Your task to perform on an android device: change notifications settings Image 0: 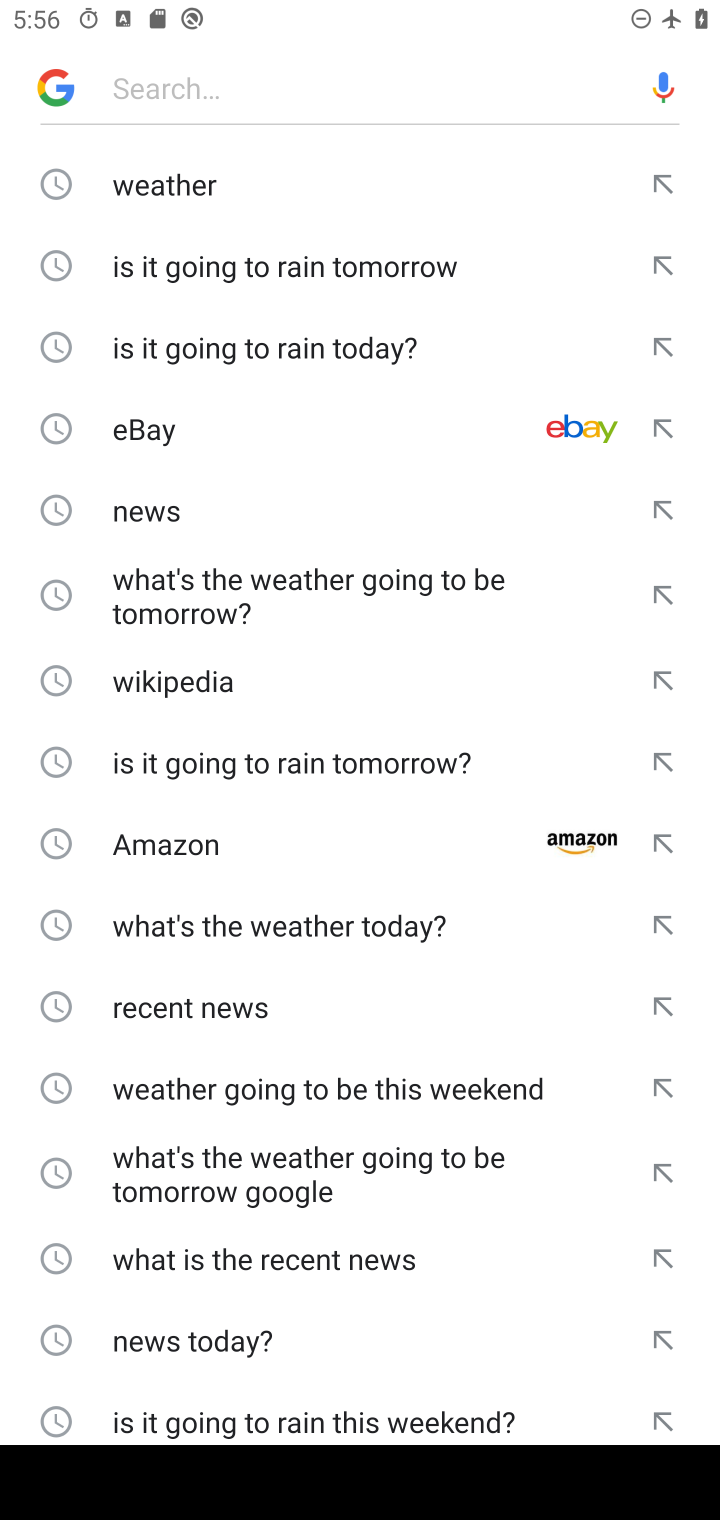
Step 0: press home button
Your task to perform on an android device: change notifications settings Image 1: 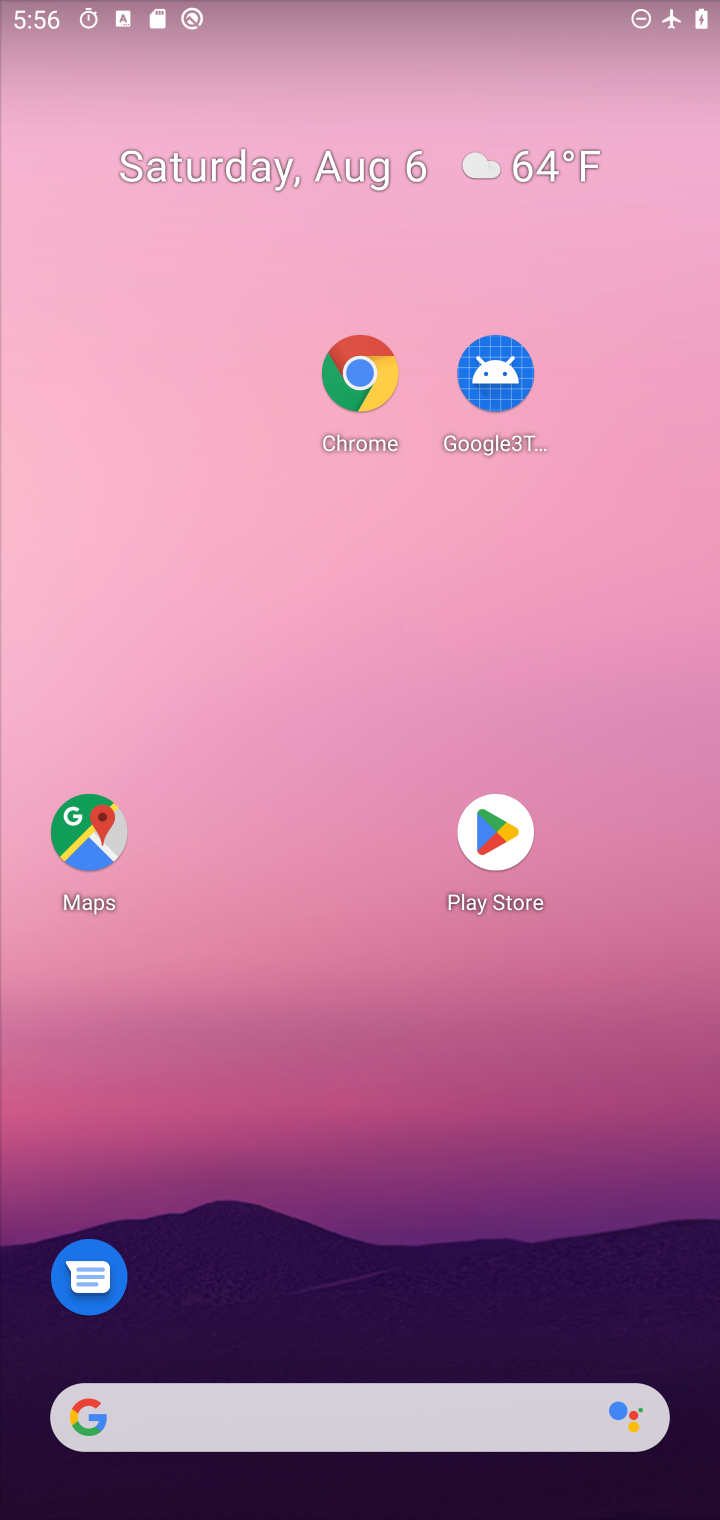
Step 1: drag from (417, 1404) to (412, 691)
Your task to perform on an android device: change notifications settings Image 2: 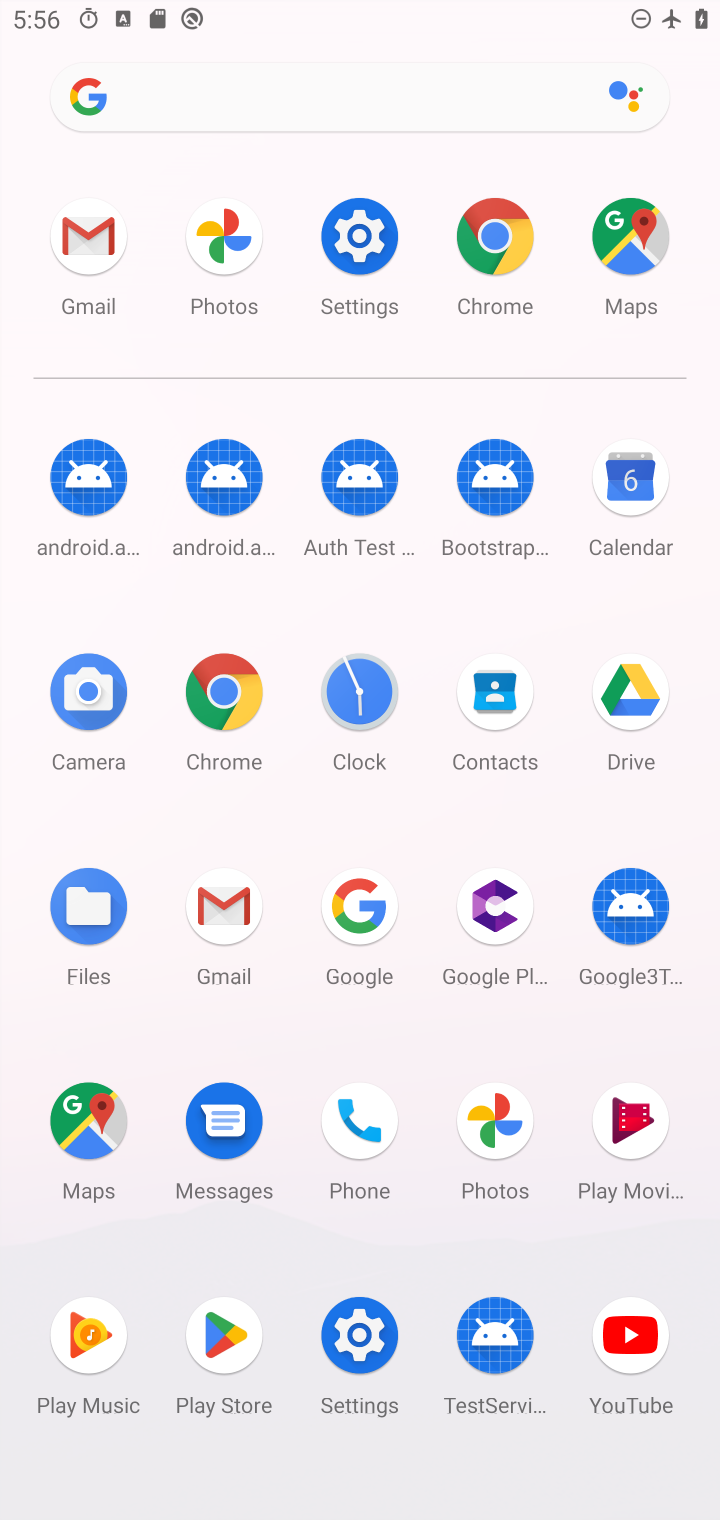
Step 2: click (365, 268)
Your task to perform on an android device: change notifications settings Image 3: 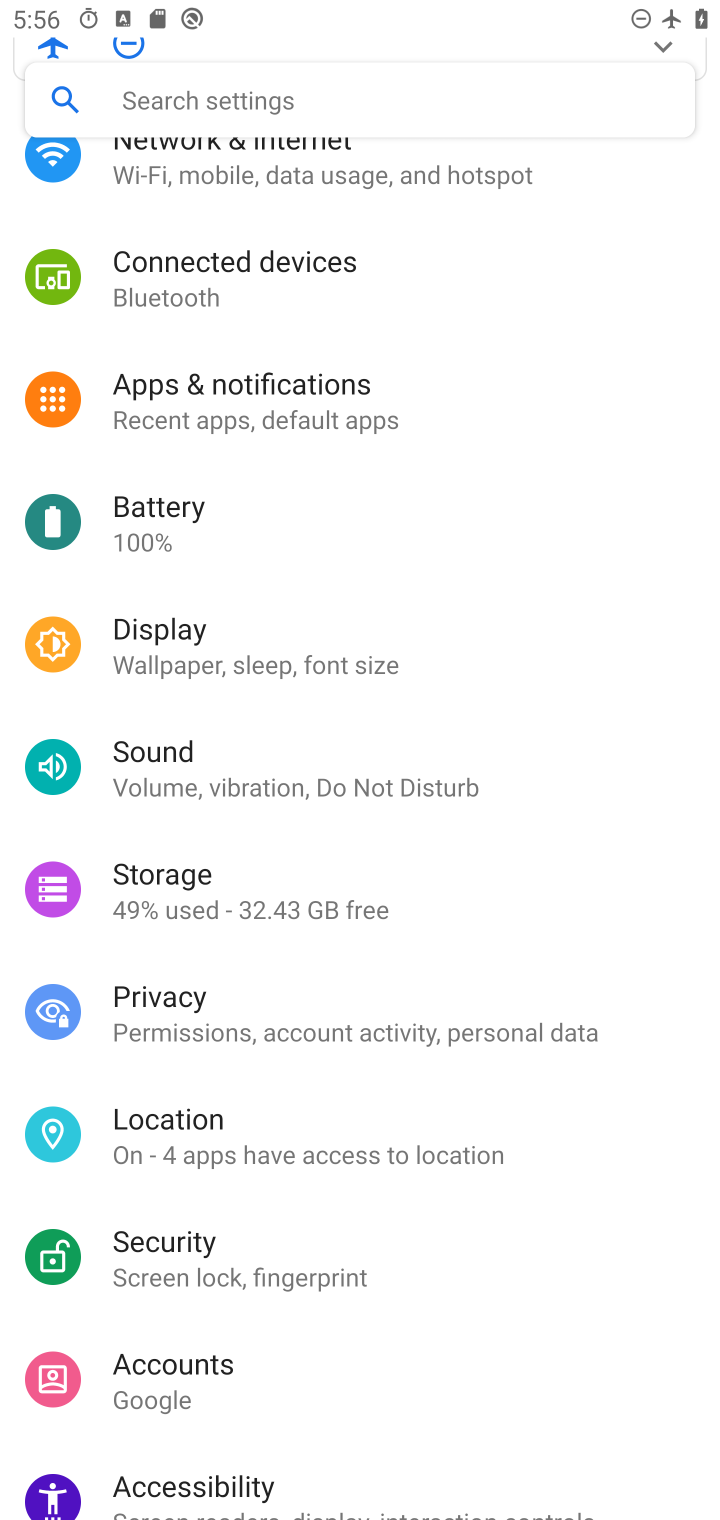
Step 3: click (225, 413)
Your task to perform on an android device: change notifications settings Image 4: 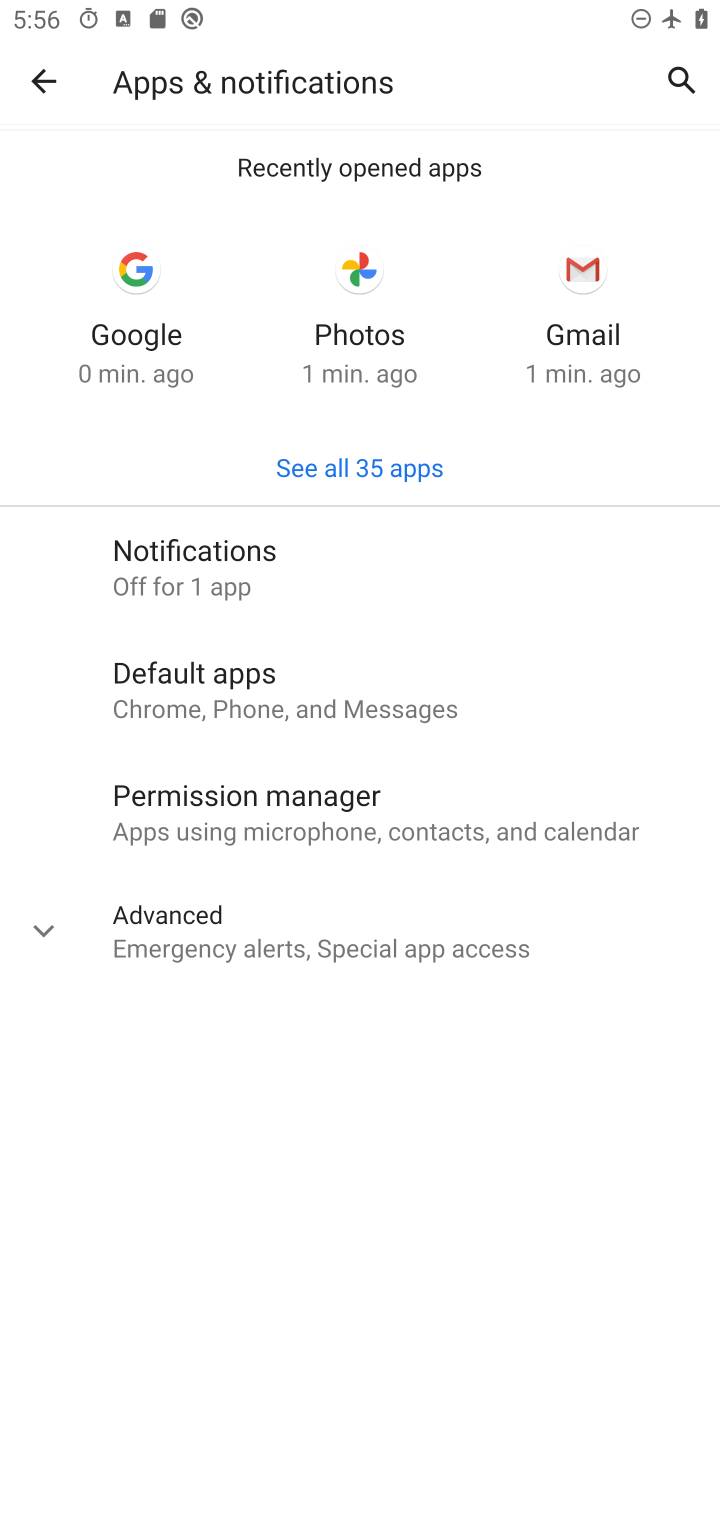
Step 4: click (223, 580)
Your task to perform on an android device: change notifications settings Image 5: 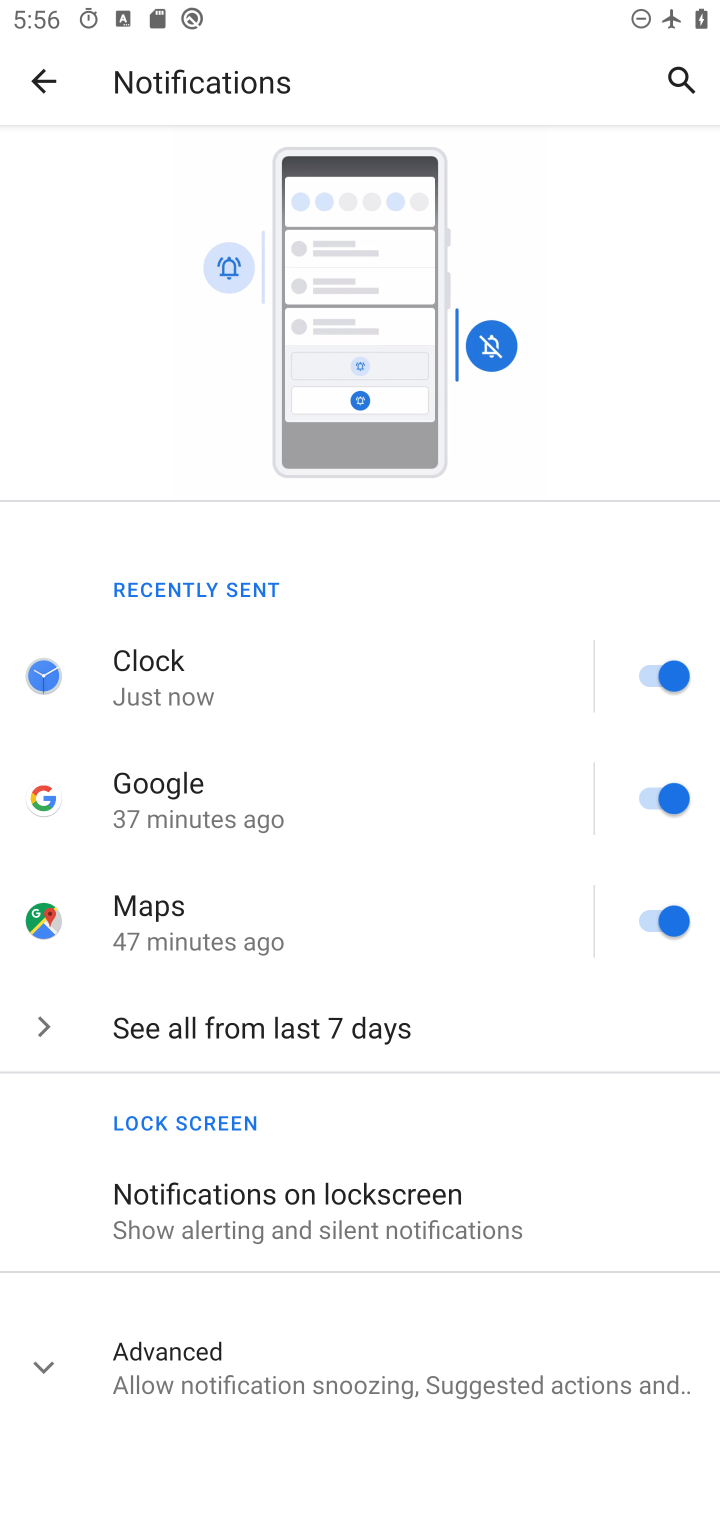
Step 5: click (296, 1366)
Your task to perform on an android device: change notifications settings Image 6: 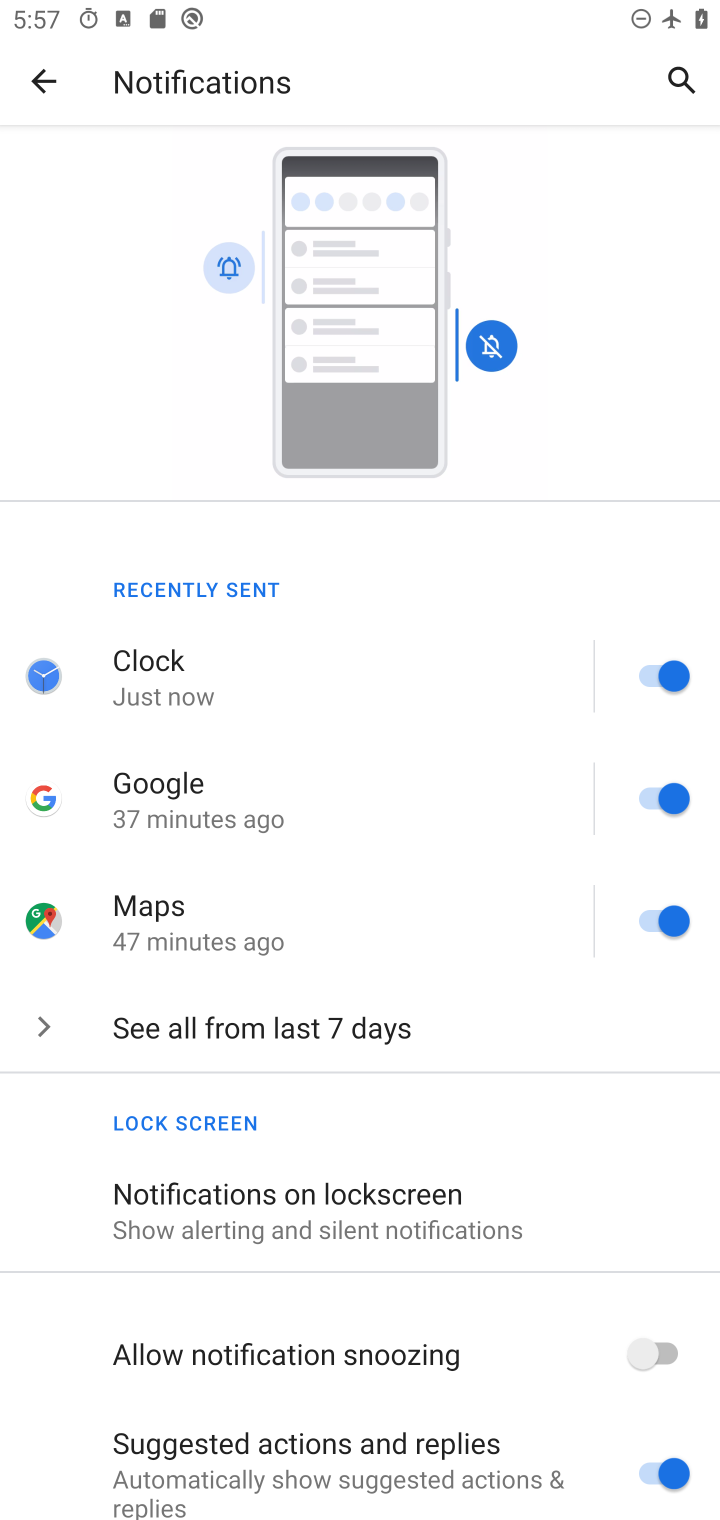
Step 6: click (655, 663)
Your task to perform on an android device: change notifications settings Image 7: 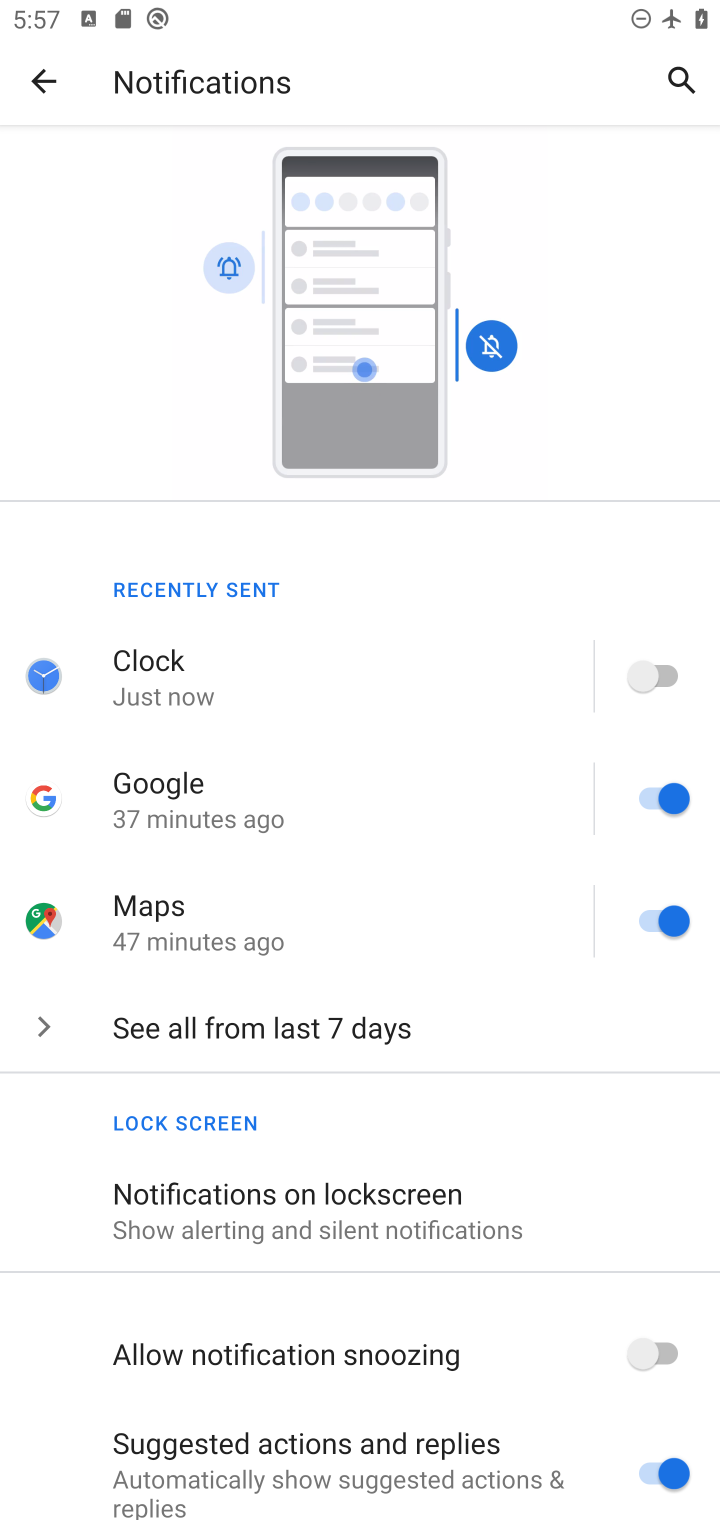
Step 7: task complete